Your task to perform on an android device: turn off wifi Image 0: 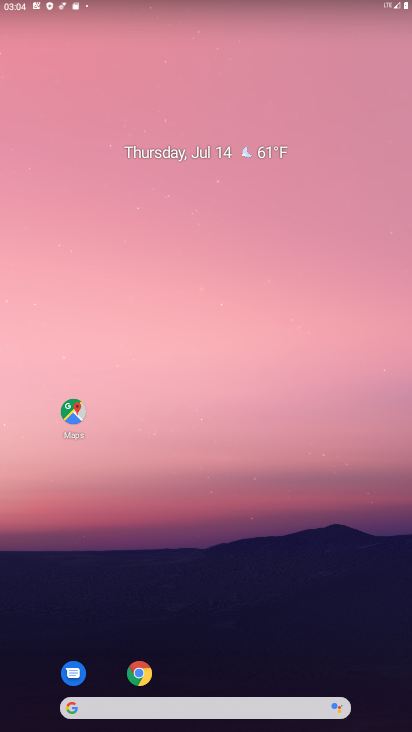
Step 0: drag from (301, 664) to (321, 108)
Your task to perform on an android device: turn off wifi Image 1: 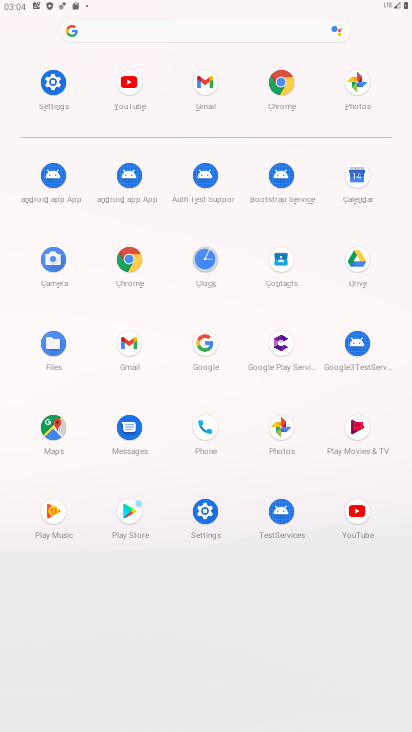
Step 1: click (59, 82)
Your task to perform on an android device: turn off wifi Image 2: 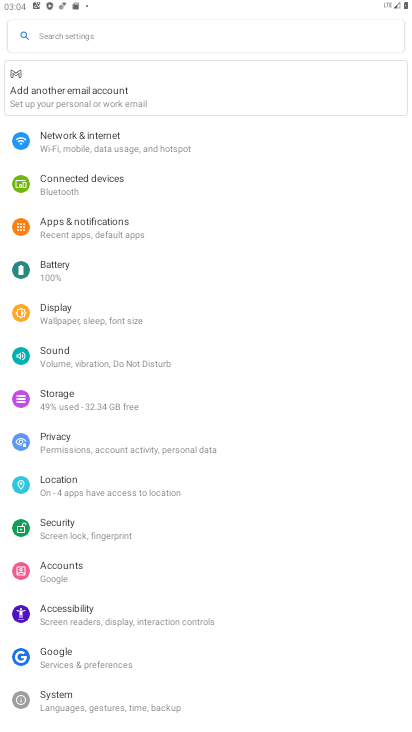
Step 2: click (171, 140)
Your task to perform on an android device: turn off wifi Image 3: 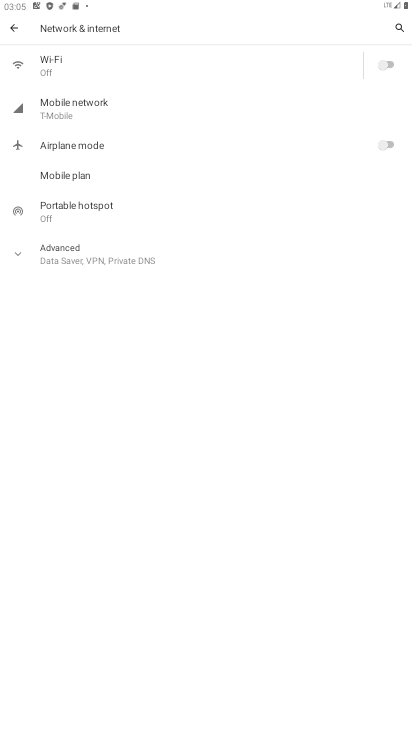
Step 3: task complete